Your task to perform on an android device: Open Yahoo.com Image 0: 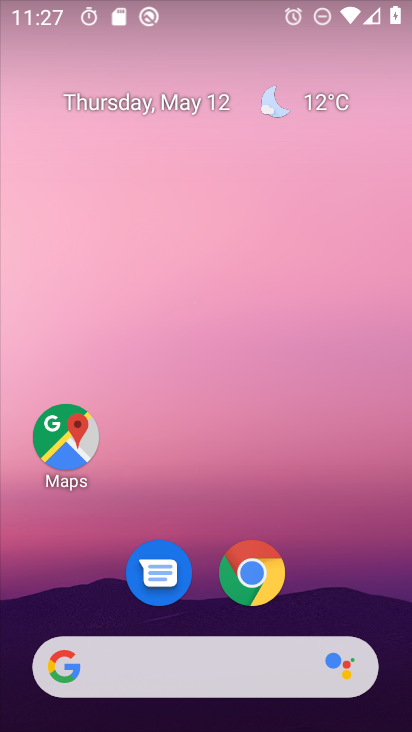
Step 0: click (276, 571)
Your task to perform on an android device: Open Yahoo.com Image 1: 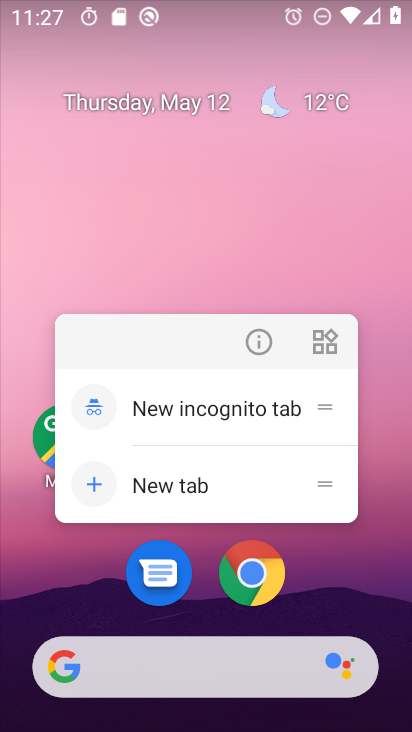
Step 1: click (245, 638)
Your task to perform on an android device: Open Yahoo.com Image 2: 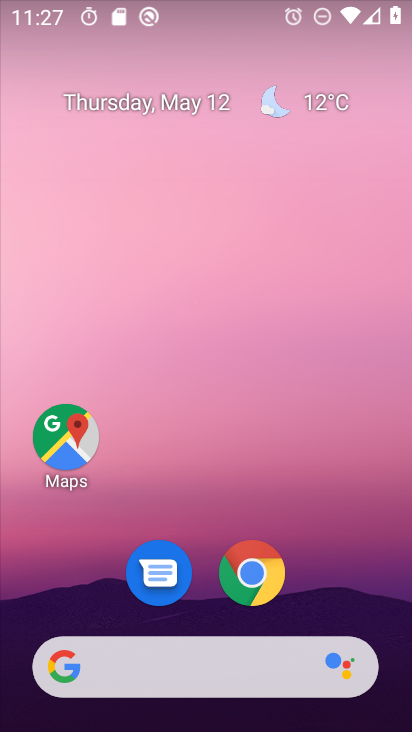
Step 2: drag from (245, 646) to (81, 728)
Your task to perform on an android device: Open Yahoo.com Image 3: 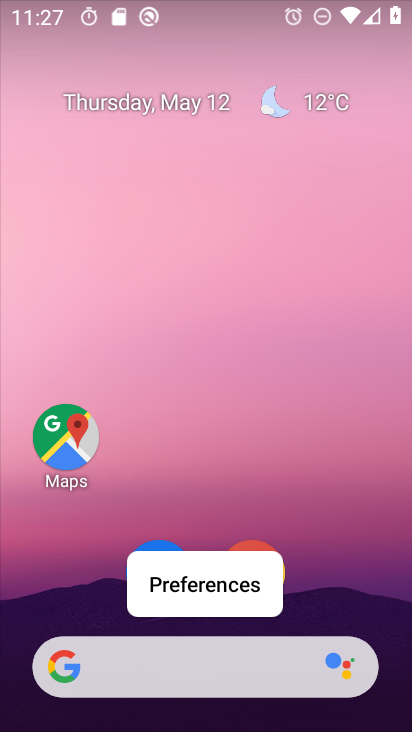
Step 3: click (327, 385)
Your task to perform on an android device: Open Yahoo.com Image 4: 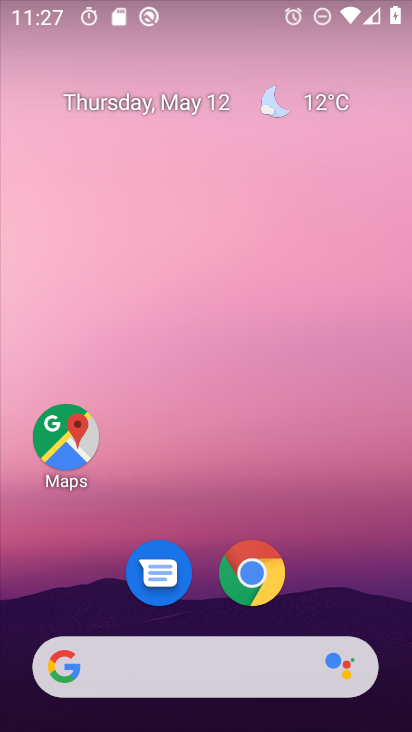
Step 4: click (265, 568)
Your task to perform on an android device: Open Yahoo.com Image 5: 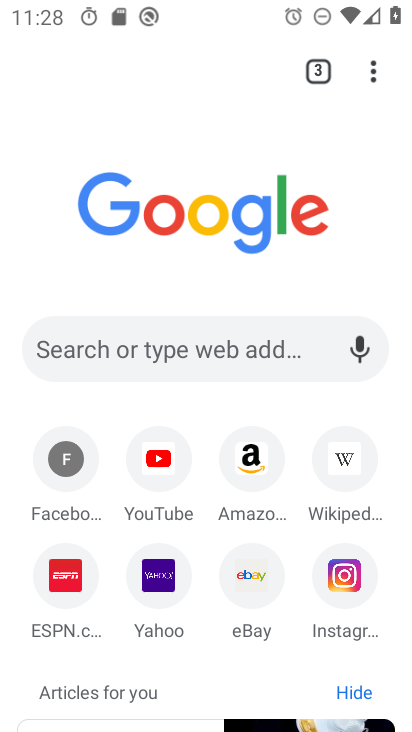
Step 5: click (151, 368)
Your task to perform on an android device: Open Yahoo.com Image 6: 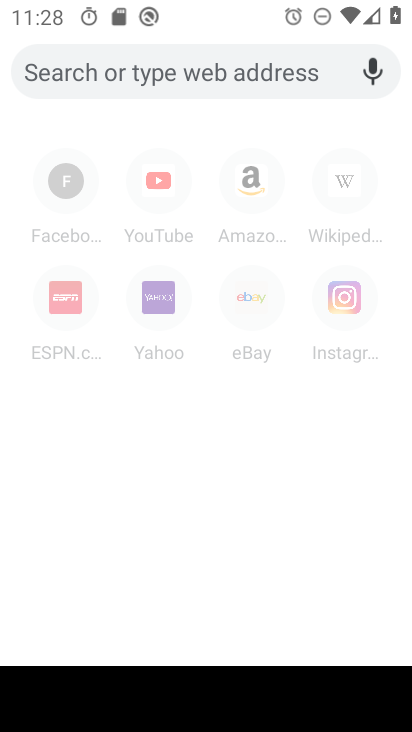
Step 6: click (100, 70)
Your task to perform on an android device: Open Yahoo.com Image 7: 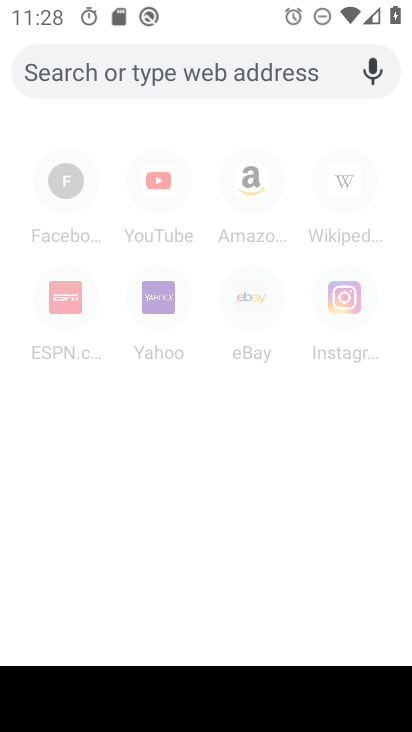
Step 7: click (100, 72)
Your task to perform on an android device: Open Yahoo.com Image 8: 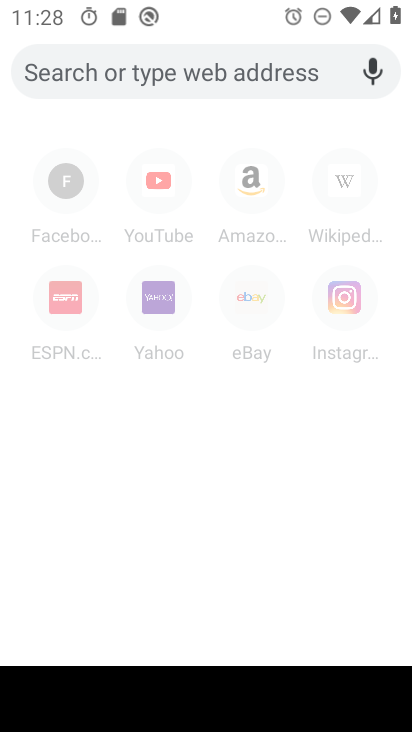
Step 8: type "Yahoo.com"
Your task to perform on an android device: Open Yahoo.com Image 9: 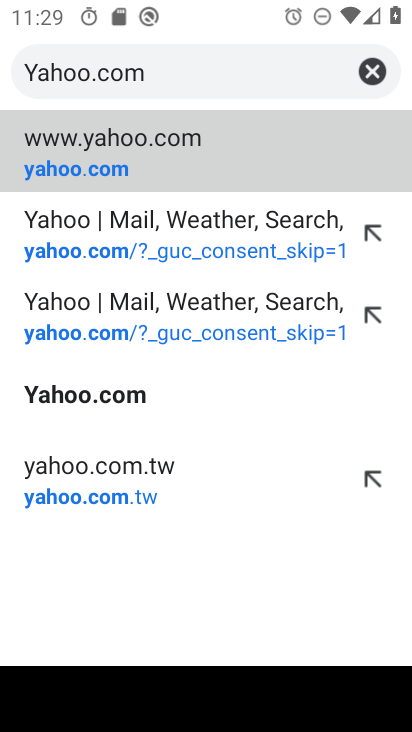
Step 9: click (126, 152)
Your task to perform on an android device: Open Yahoo.com Image 10: 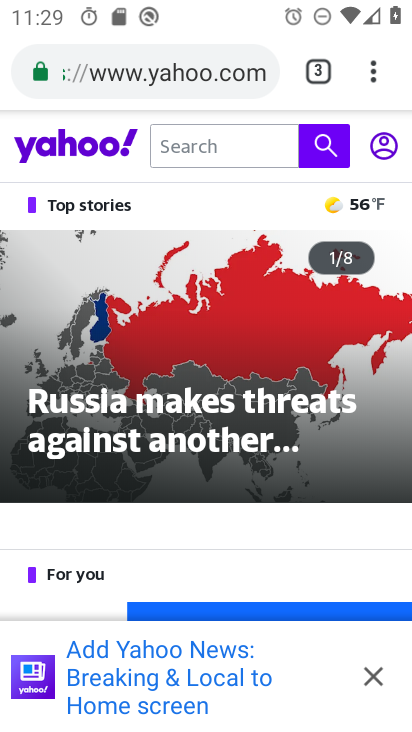
Step 10: task complete